Your task to perform on an android device: add a contact in the contacts app Image 0: 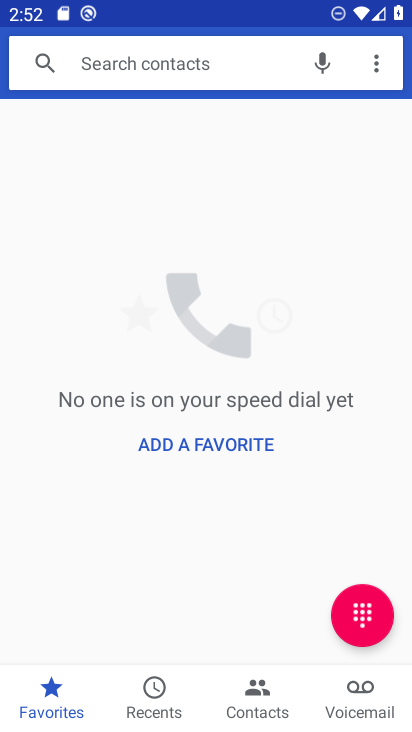
Step 0: press home button
Your task to perform on an android device: add a contact in the contacts app Image 1: 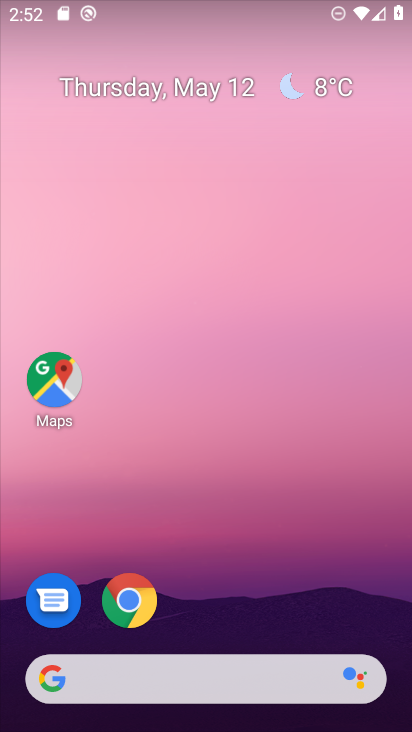
Step 1: drag from (201, 726) to (225, 159)
Your task to perform on an android device: add a contact in the contacts app Image 2: 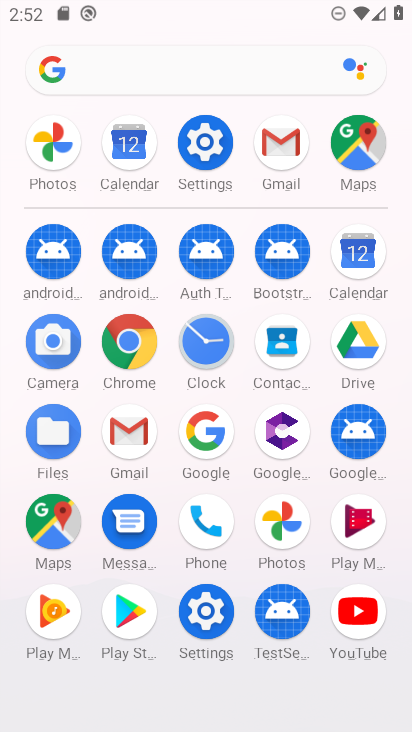
Step 2: click (277, 342)
Your task to perform on an android device: add a contact in the contacts app Image 3: 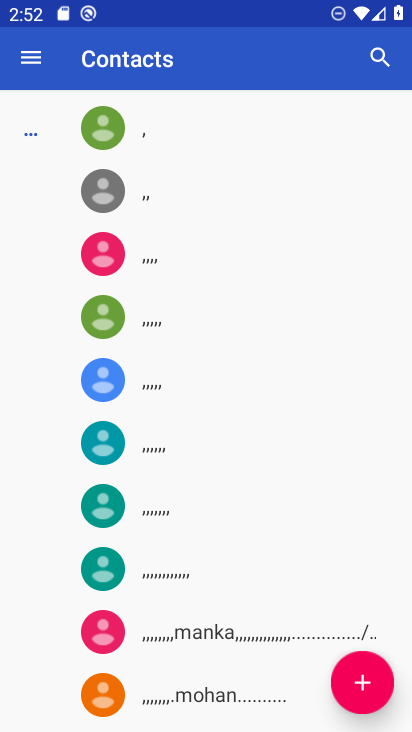
Step 3: click (356, 685)
Your task to perform on an android device: add a contact in the contacts app Image 4: 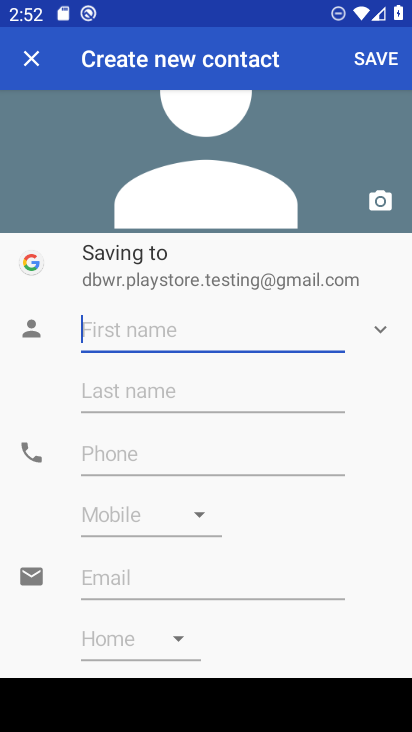
Step 4: type "neekanth"
Your task to perform on an android device: add a contact in the contacts app Image 5: 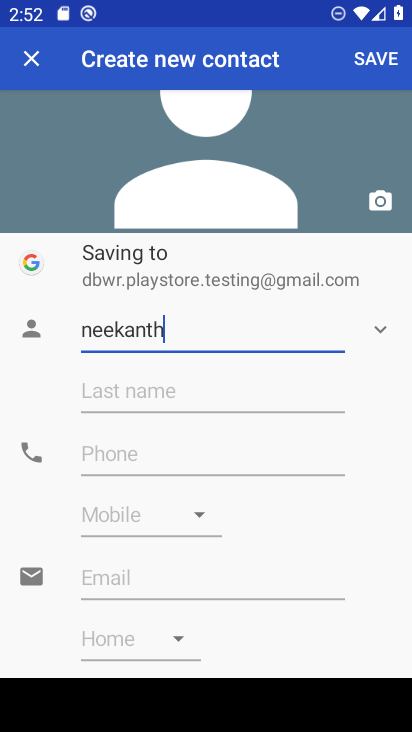
Step 5: click (133, 445)
Your task to perform on an android device: add a contact in the contacts app Image 6: 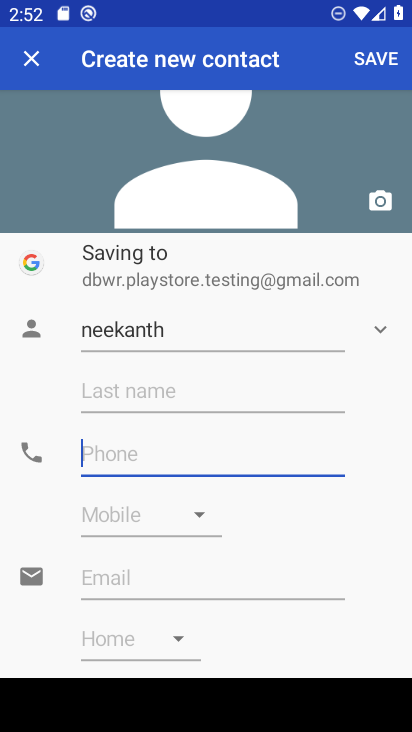
Step 6: type "9695"
Your task to perform on an android device: add a contact in the contacts app Image 7: 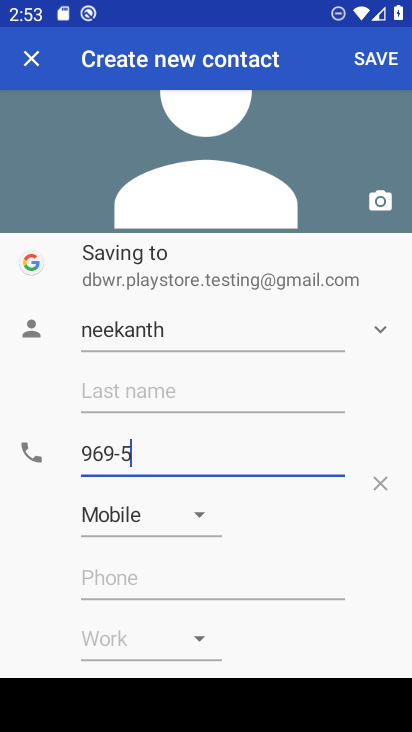
Step 7: click (373, 59)
Your task to perform on an android device: add a contact in the contacts app Image 8: 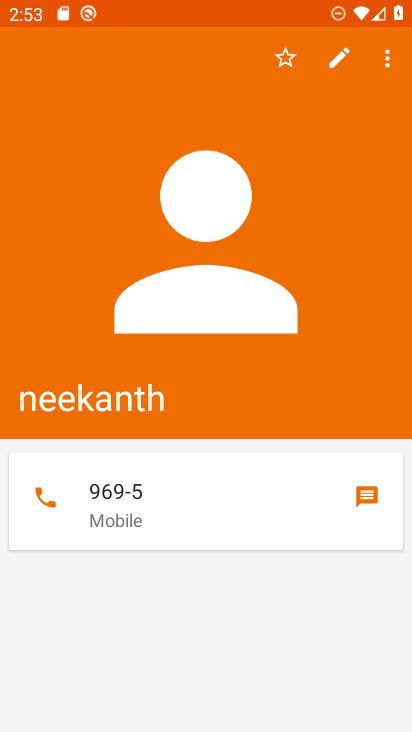
Step 8: task complete